Your task to perform on an android device: Open Maps and search for coffee Image 0: 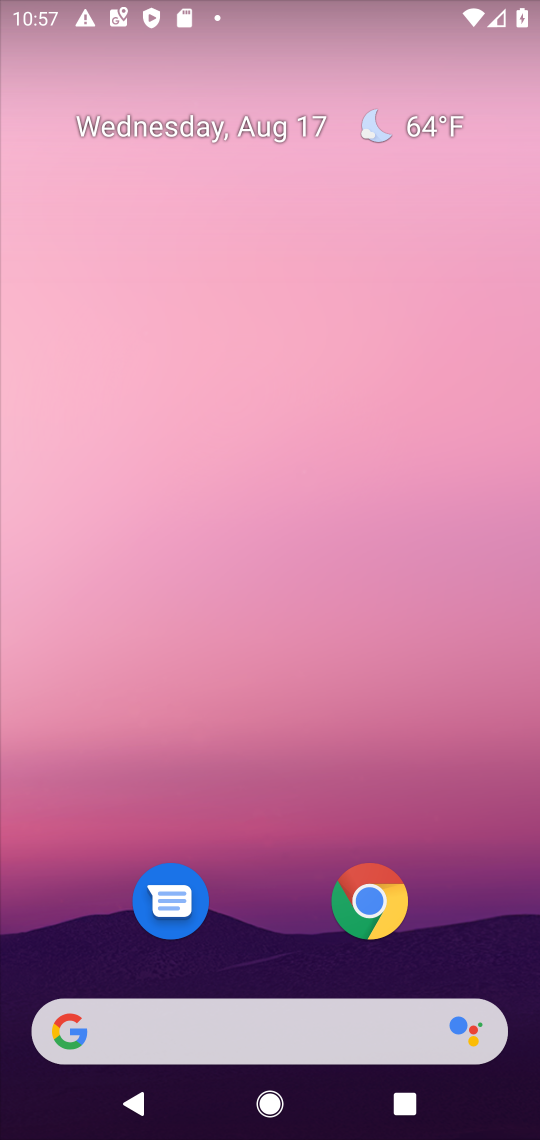
Step 0: press home button
Your task to perform on an android device: Open Maps and search for coffee Image 1: 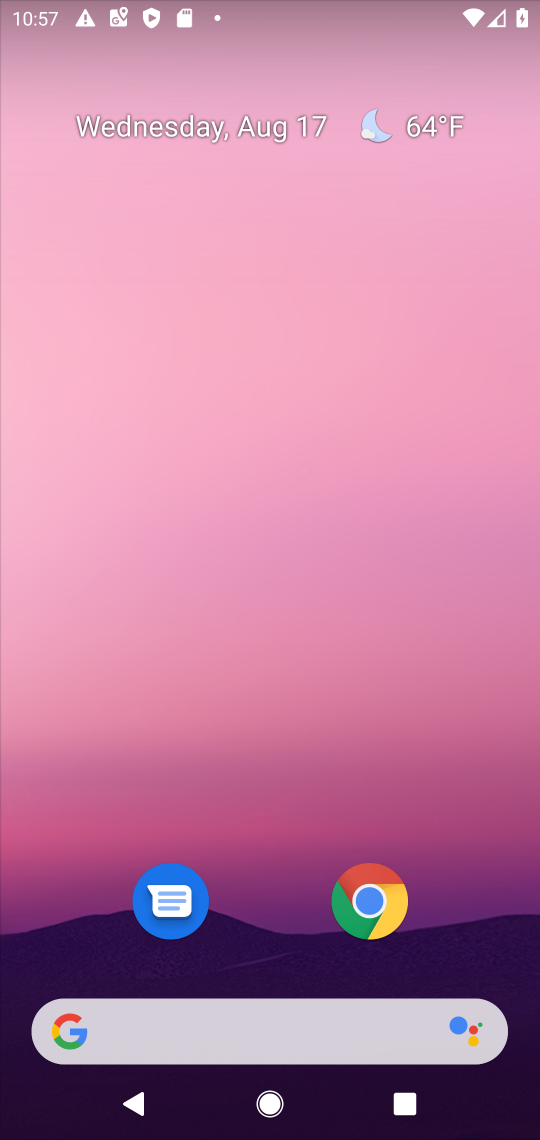
Step 1: drag from (245, 954) to (252, 199)
Your task to perform on an android device: Open Maps and search for coffee Image 2: 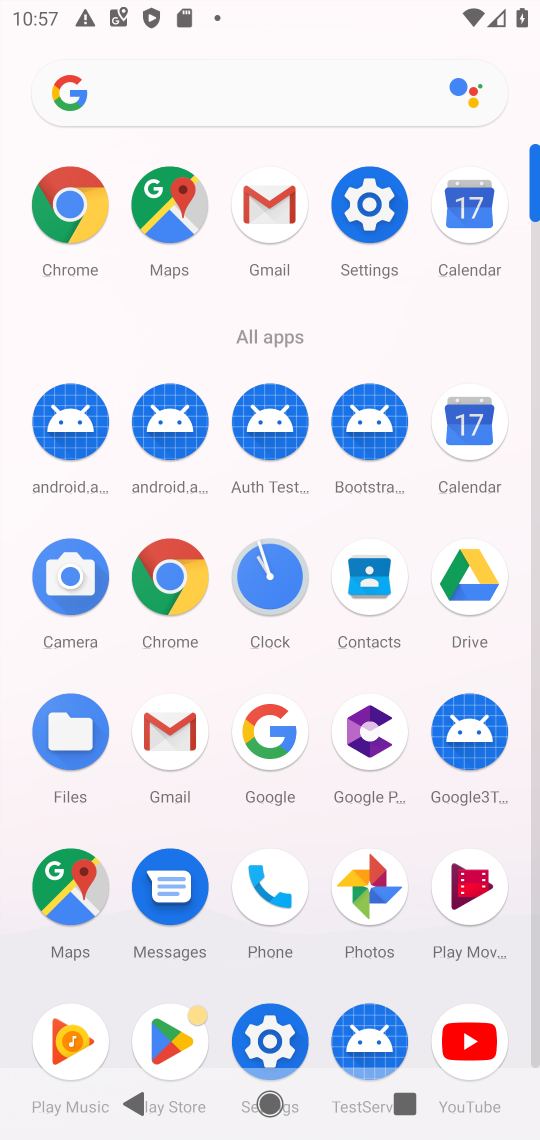
Step 2: click (188, 200)
Your task to perform on an android device: Open Maps and search for coffee Image 3: 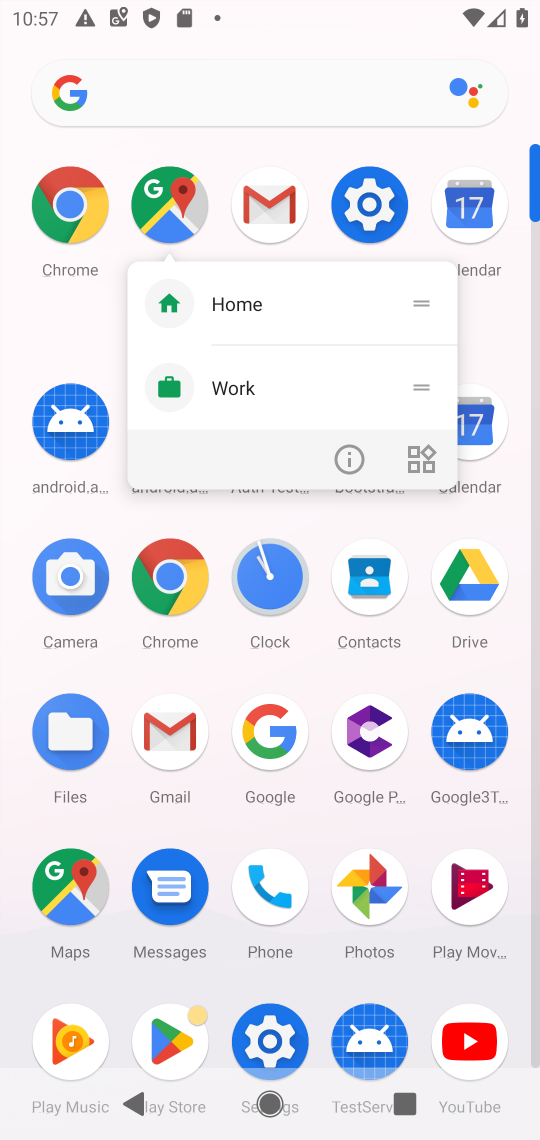
Step 3: click (186, 197)
Your task to perform on an android device: Open Maps and search for coffee Image 4: 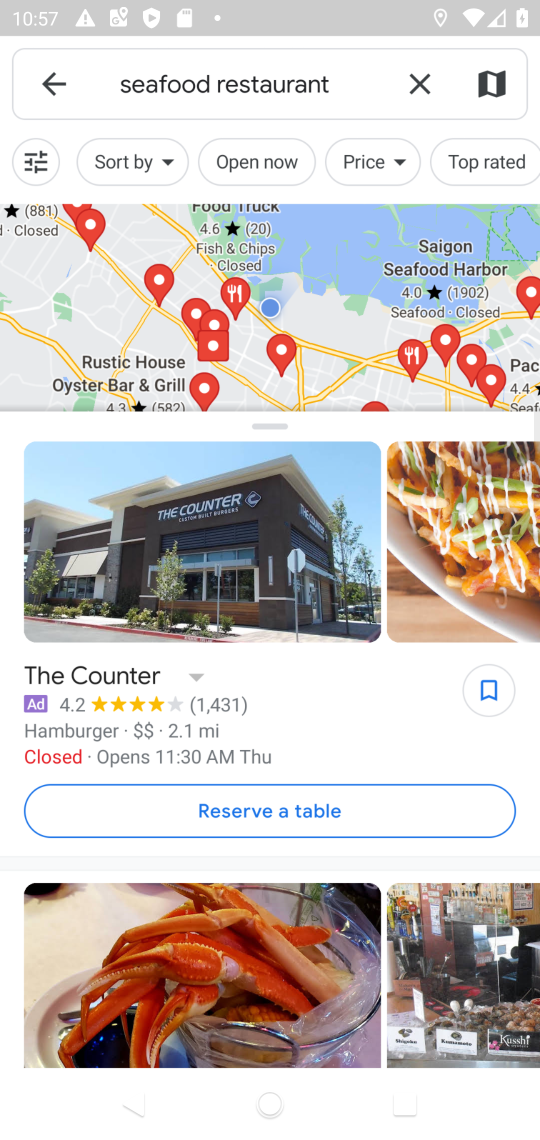
Step 4: click (51, 80)
Your task to perform on an android device: Open Maps and search for coffee Image 5: 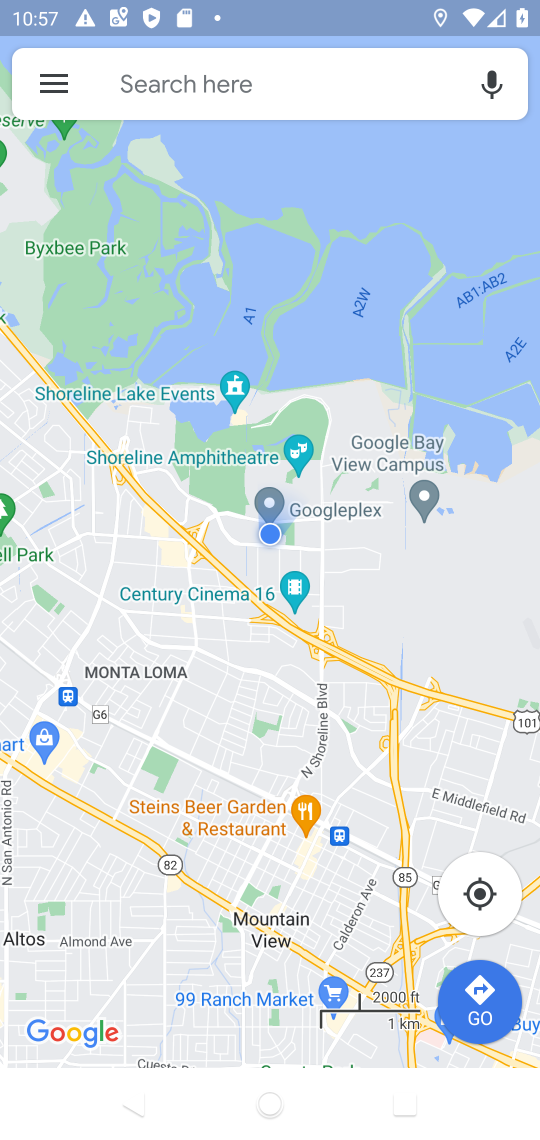
Step 5: click (308, 78)
Your task to perform on an android device: Open Maps and search for coffee Image 6: 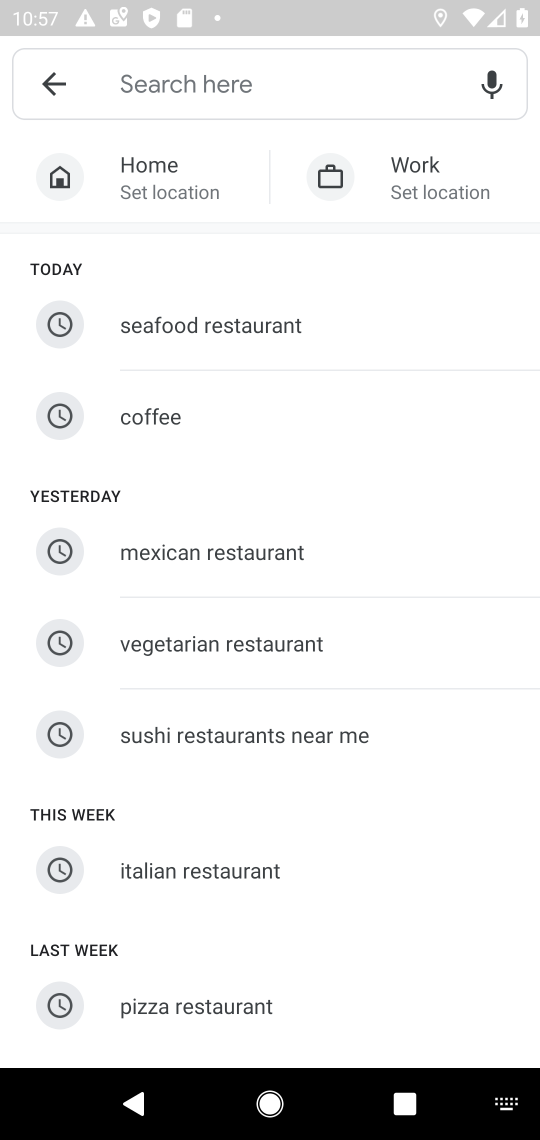
Step 6: click (170, 425)
Your task to perform on an android device: Open Maps and search for coffee Image 7: 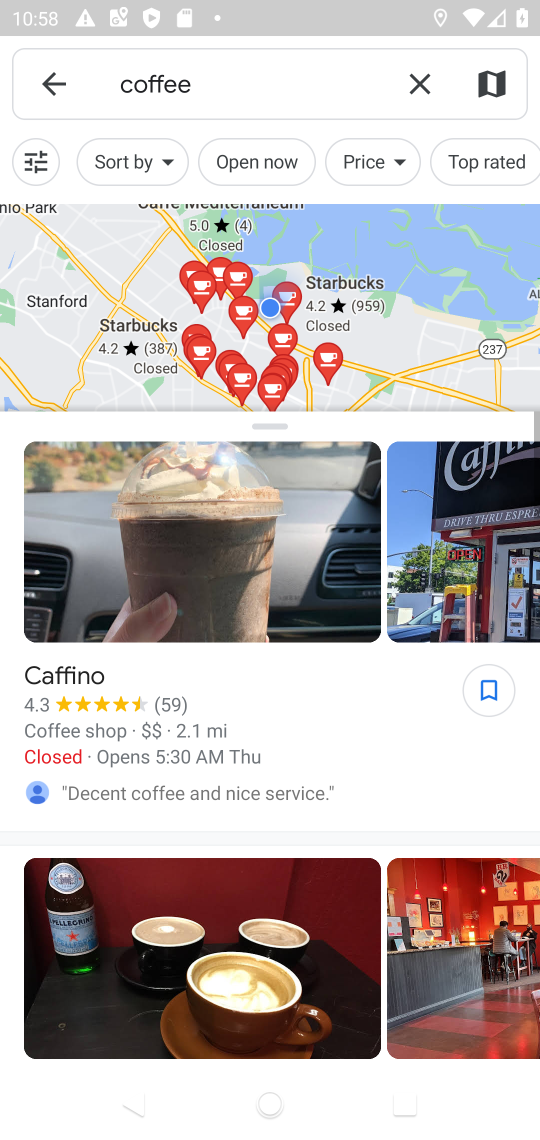
Step 7: task complete